Your task to perform on an android device: Open ESPN.com Image 0: 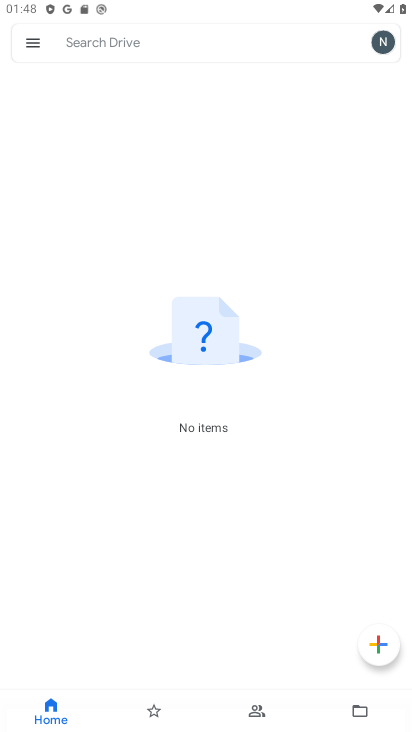
Step 0: press home button
Your task to perform on an android device: Open ESPN.com Image 1: 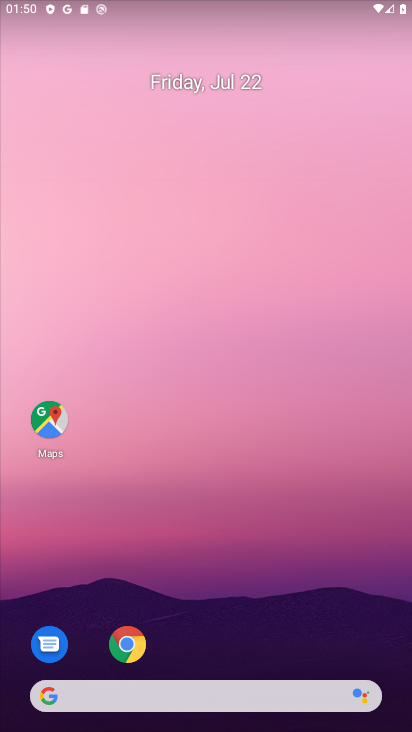
Step 1: click (127, 703)
Your task to perform on an android device: Open ESPN.com Image 2: 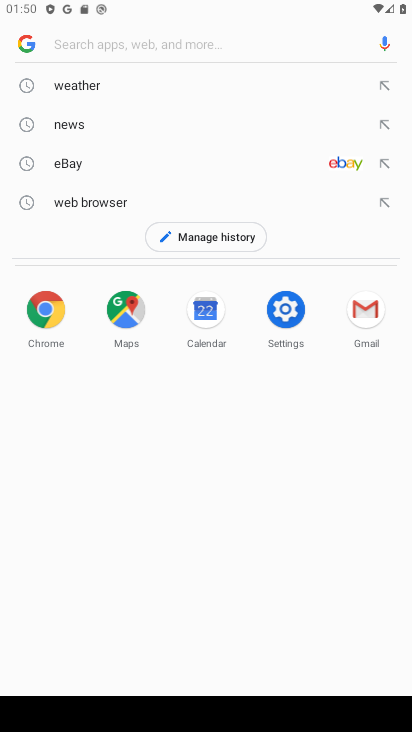
Step 2: type "espn.com"
Your task to perform on an android device: Open ESPN.com Image 3: 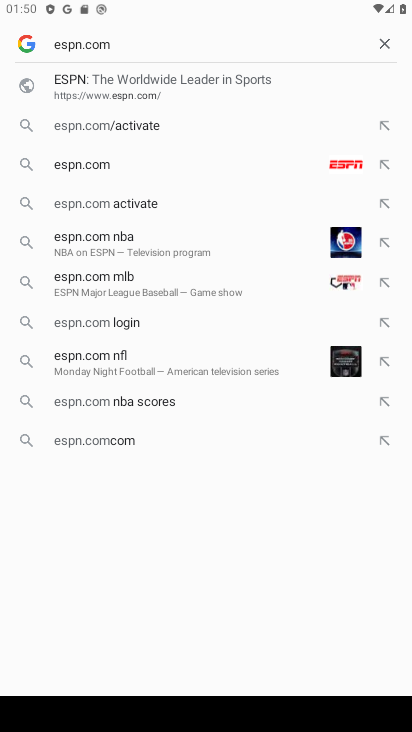
Step 3: click (95, 98)
Your task to perform on an android device: Open ESPN.com Image 4: 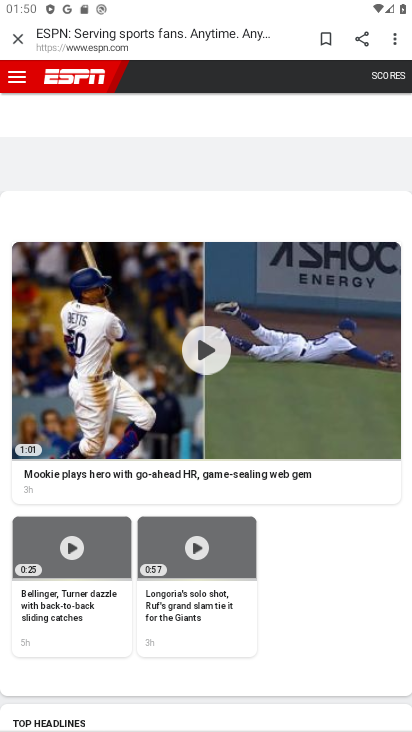
Step 4: task complete